Your task to perform on an android device: Open sound settings Image 0: 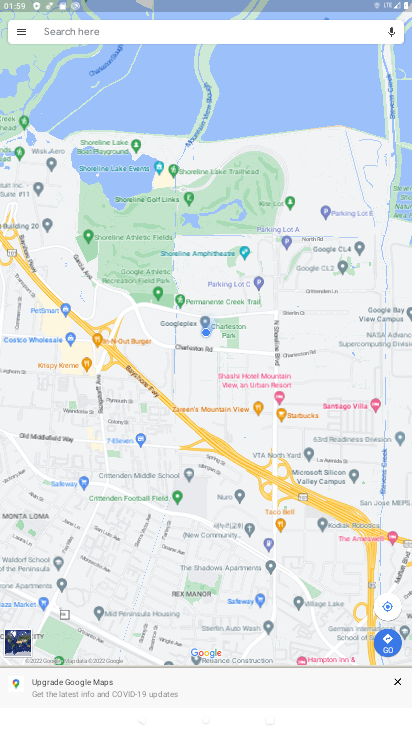
Step 0: press home button
Your task to perform on an android device: Open sound settings Image 1: 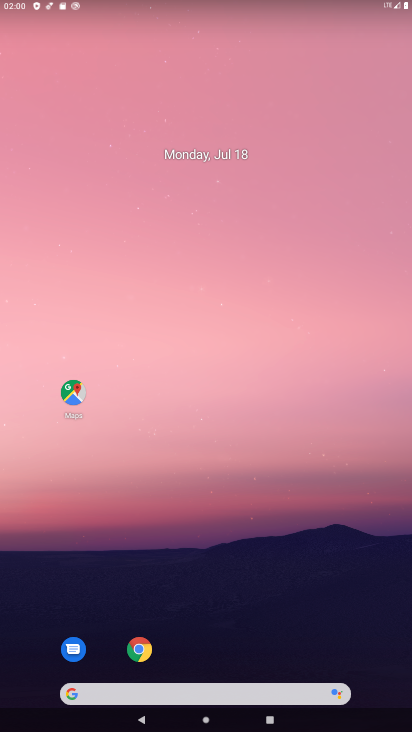
Step 1: drag from (113, 719) to (208, 56)
Your task to perform on an android device: Open sound settings Image 2: 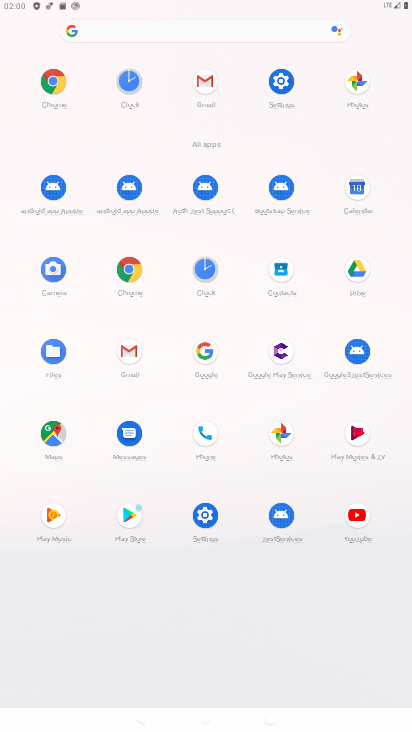
Step 2: click (286, 79)
Your task to perform on an android device: Open sound settings Image 3: 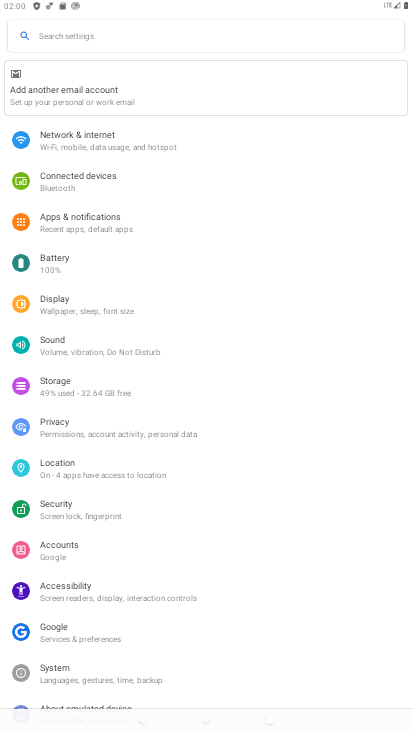
Step 3: click (67, 350)
Your task to perform on an android device: Open sound settings Image 4: 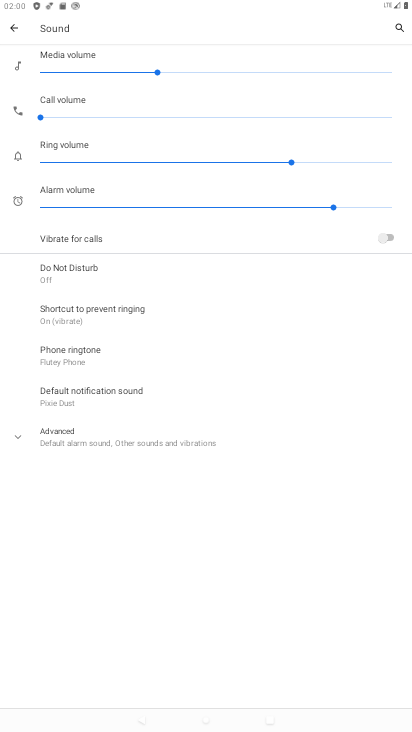
Step 4: task complete